Your task to perform on an android device: Google the capital of Paraguay Image 0: 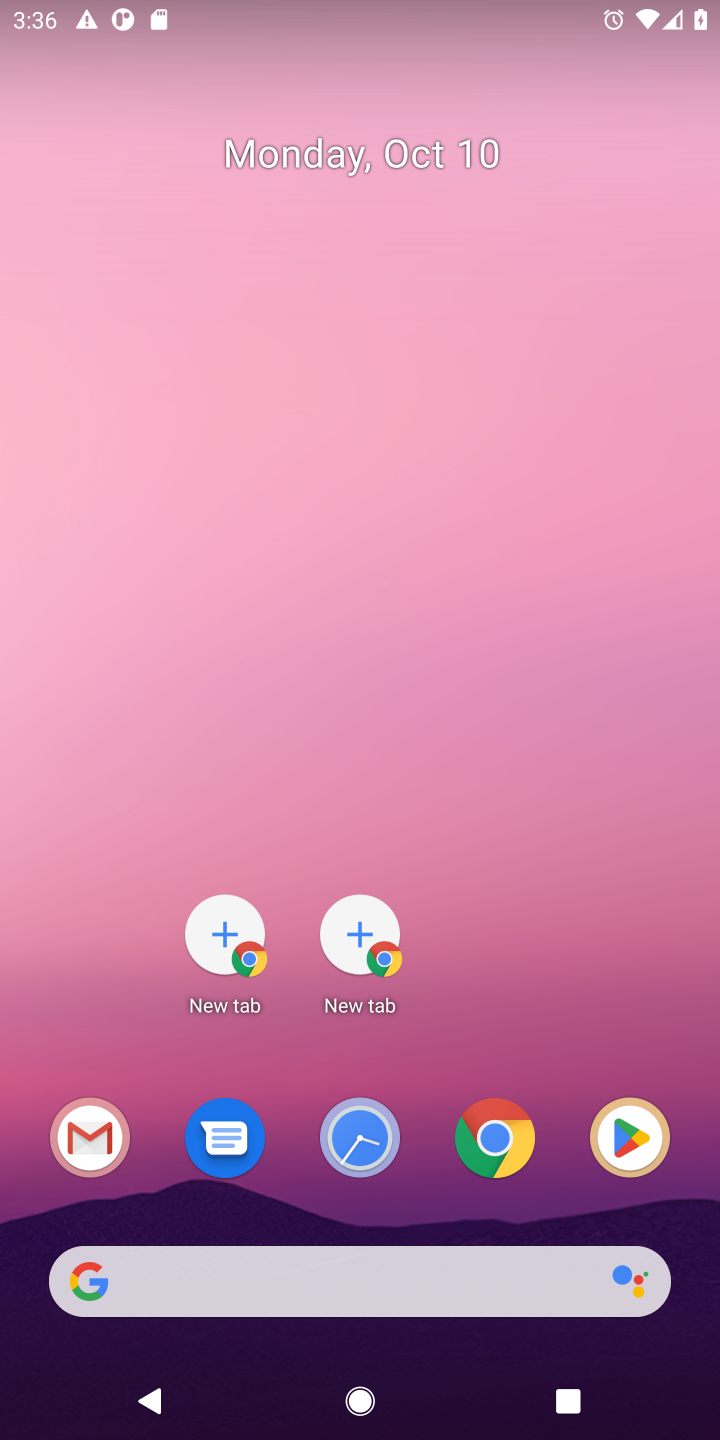
Step 0: click (491, 1183)
Your task to perform on an android device: Google the capital of Paraguay Image 1: 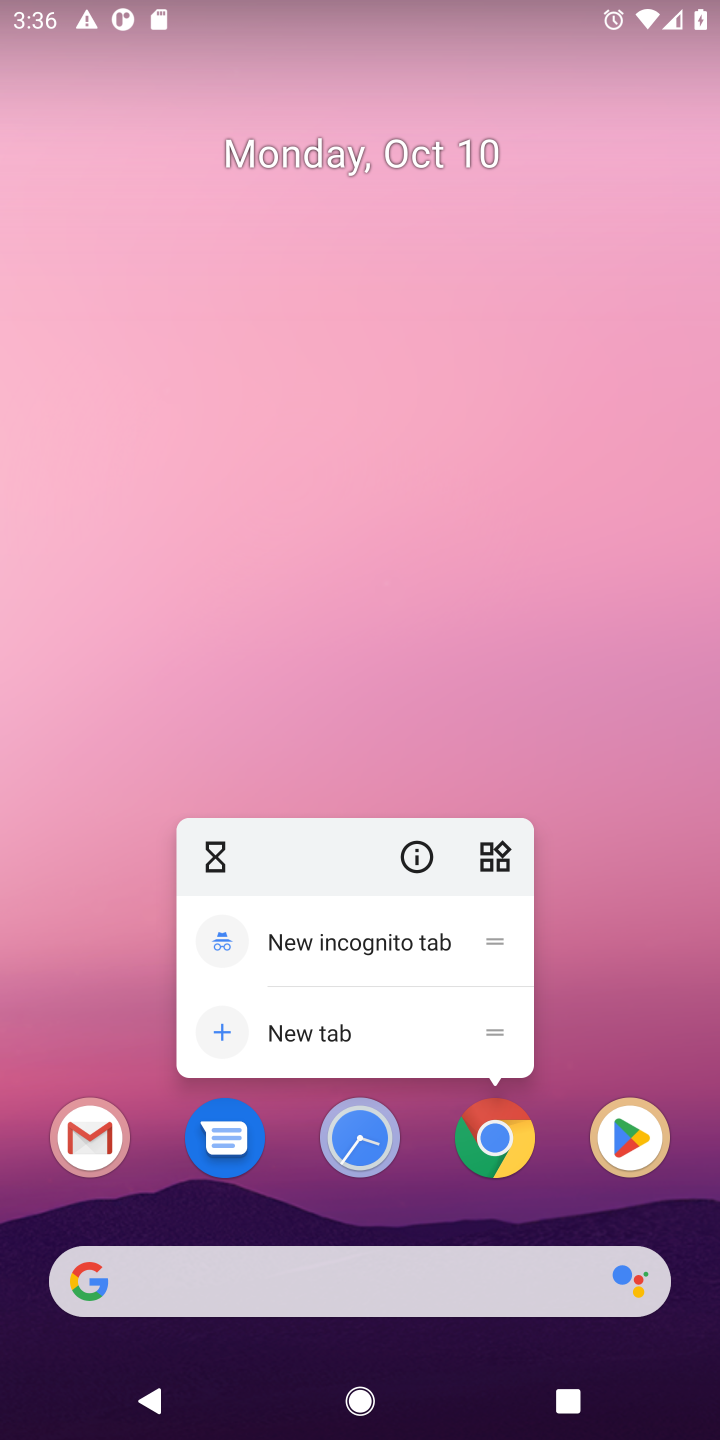
Step 1: click (507, 1156)
Your task to perform on an android device: Google the capital of Paraguay Image 2: 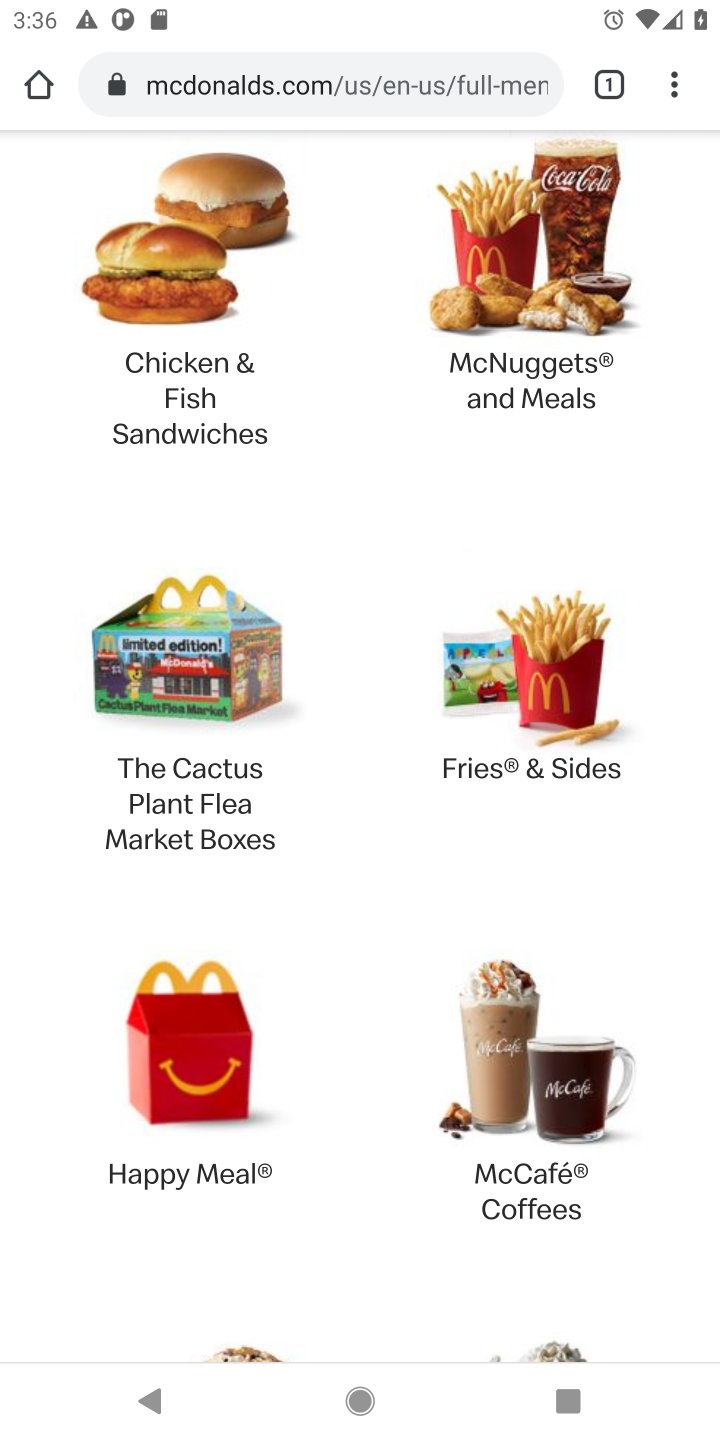
Step 2: click (339, 97)
Your task to perform on an android device: Google the capital of Paraguay Image 3: 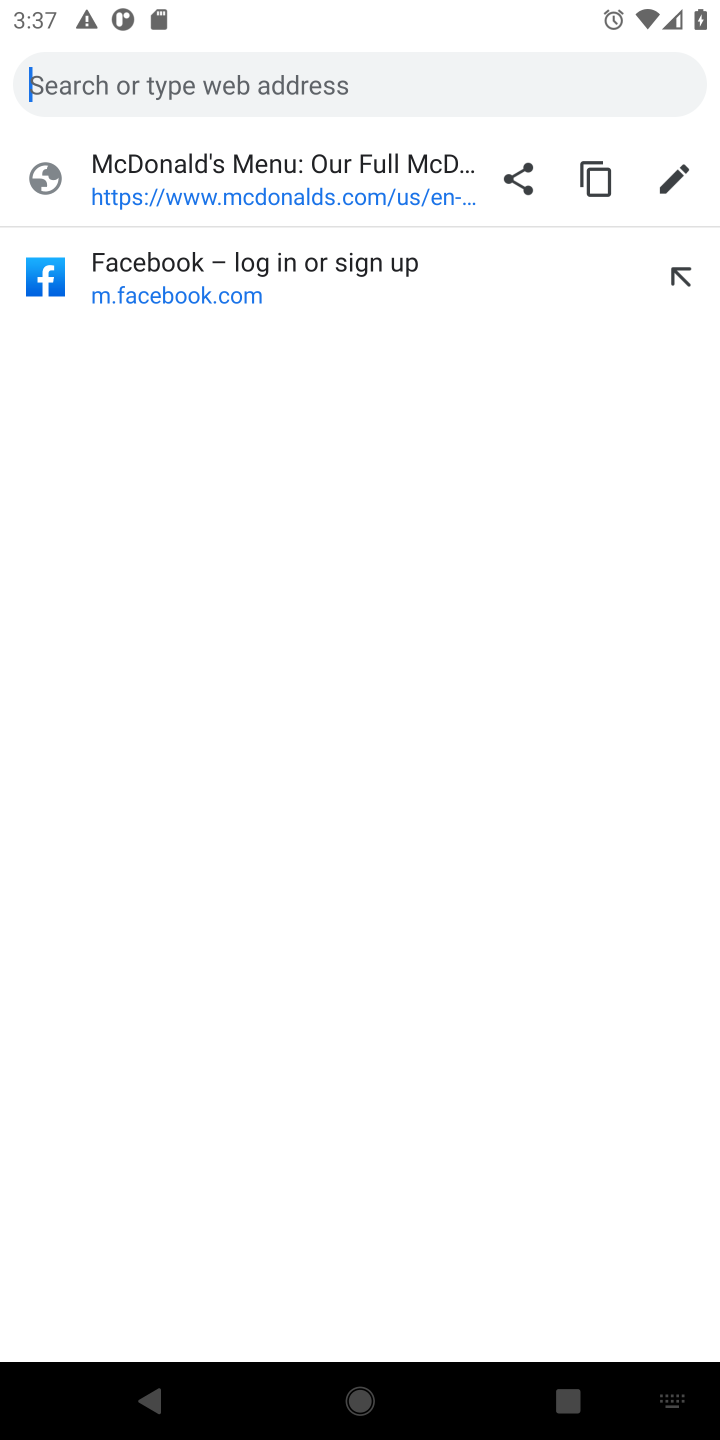
Step 3: type "capital of Paraguay"
Your task to perform on an android device: Google the capital of Paraguay Image 4: 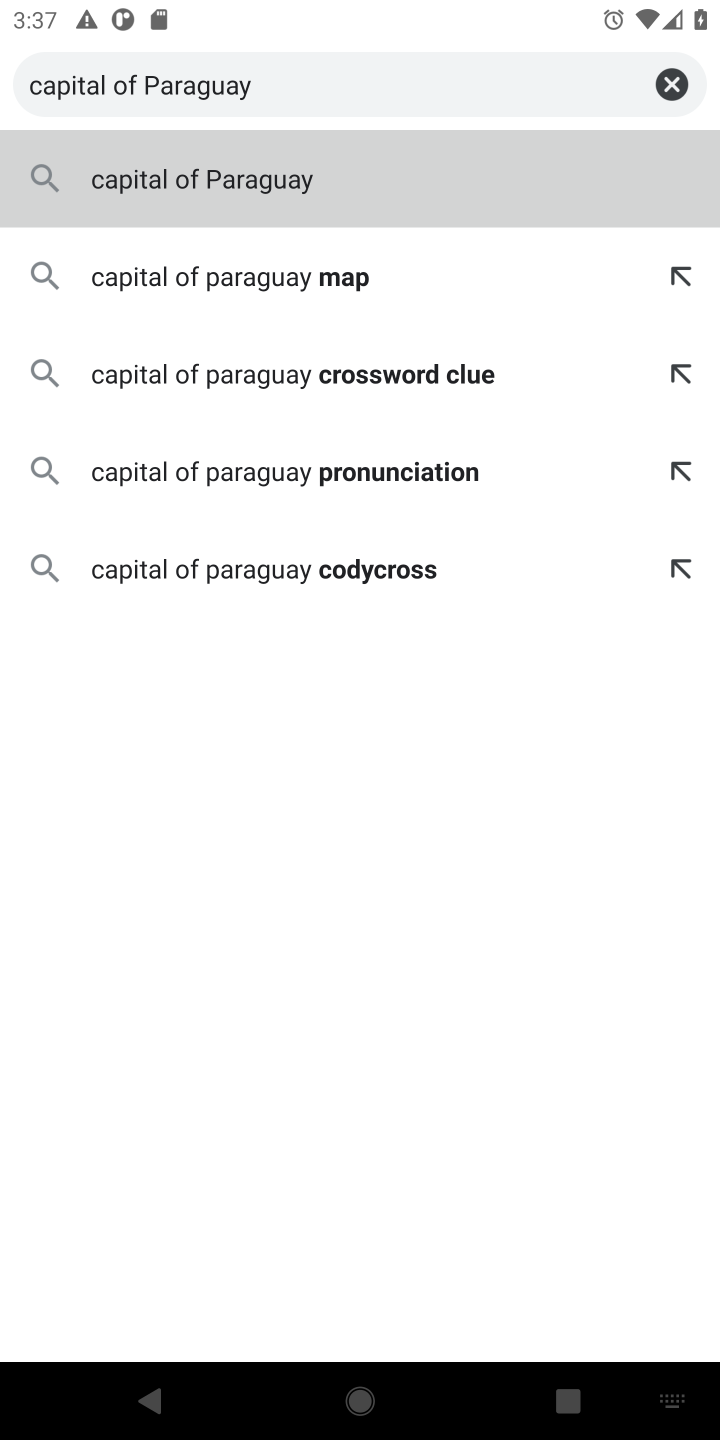
Step 4: type ""
Your task to perform on an android device: Google the capital of Paraguay Image 5: 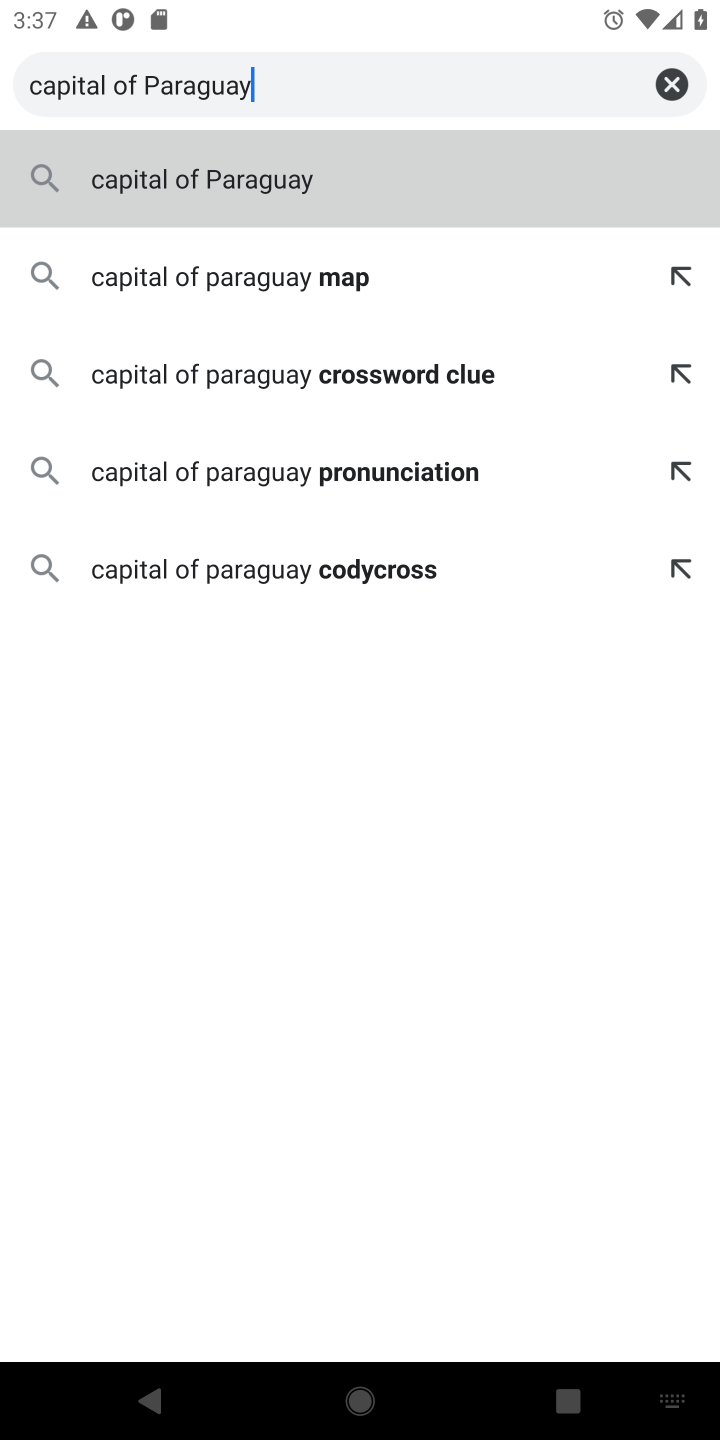
Step 5: type ""
Your task to perform on an android device: Google the capital of Paraguay Image 6: 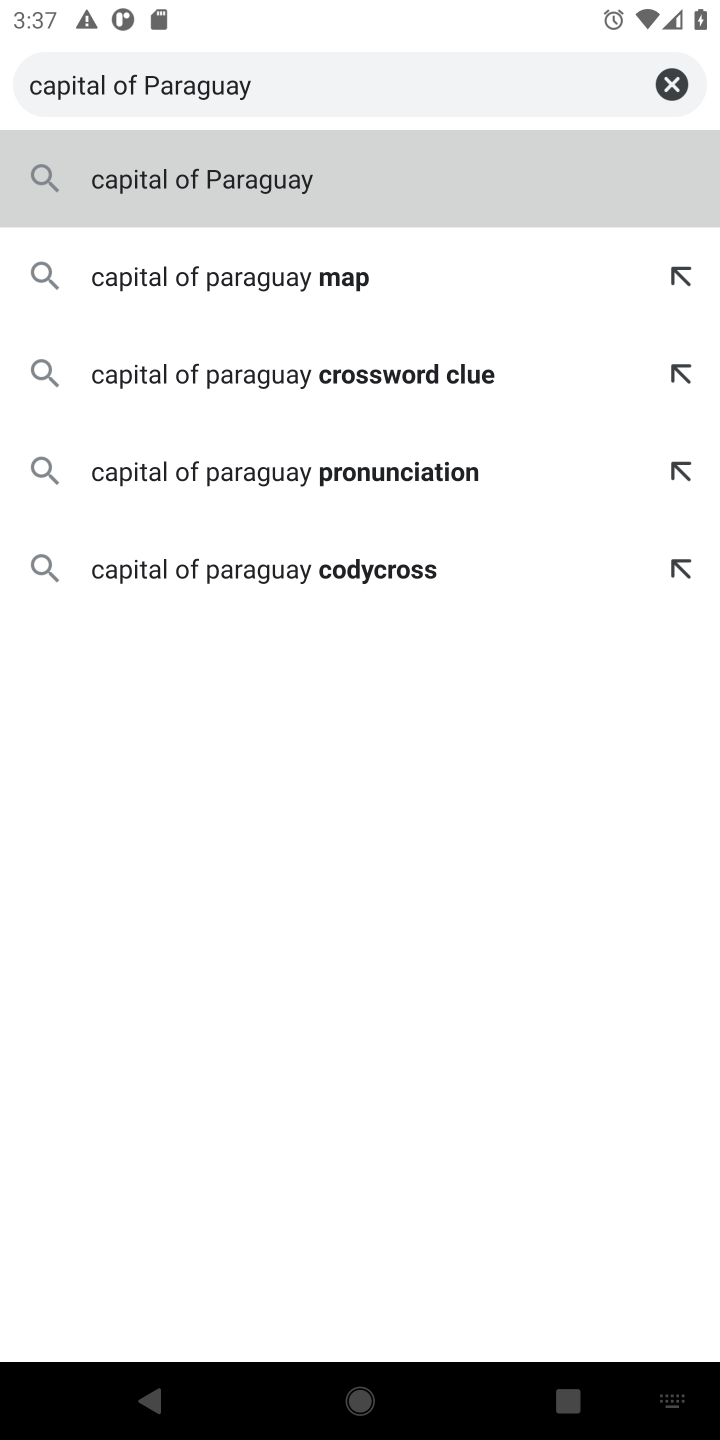
Step 6: press enter
Your task to perform on an android device: Google the capital of Paraguay Image 7: 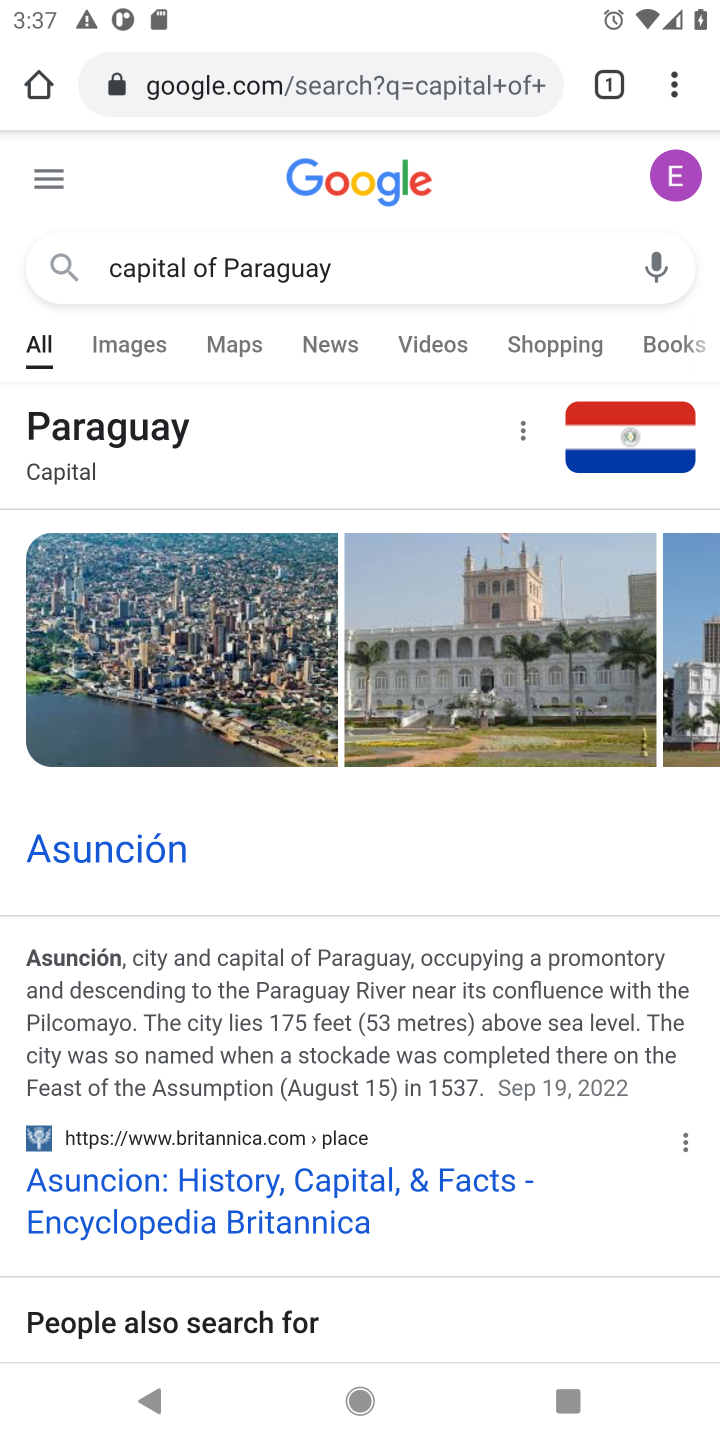
Step 7: task complete